Your task to perform on an android device: find which apps use the phone's location Image 0: 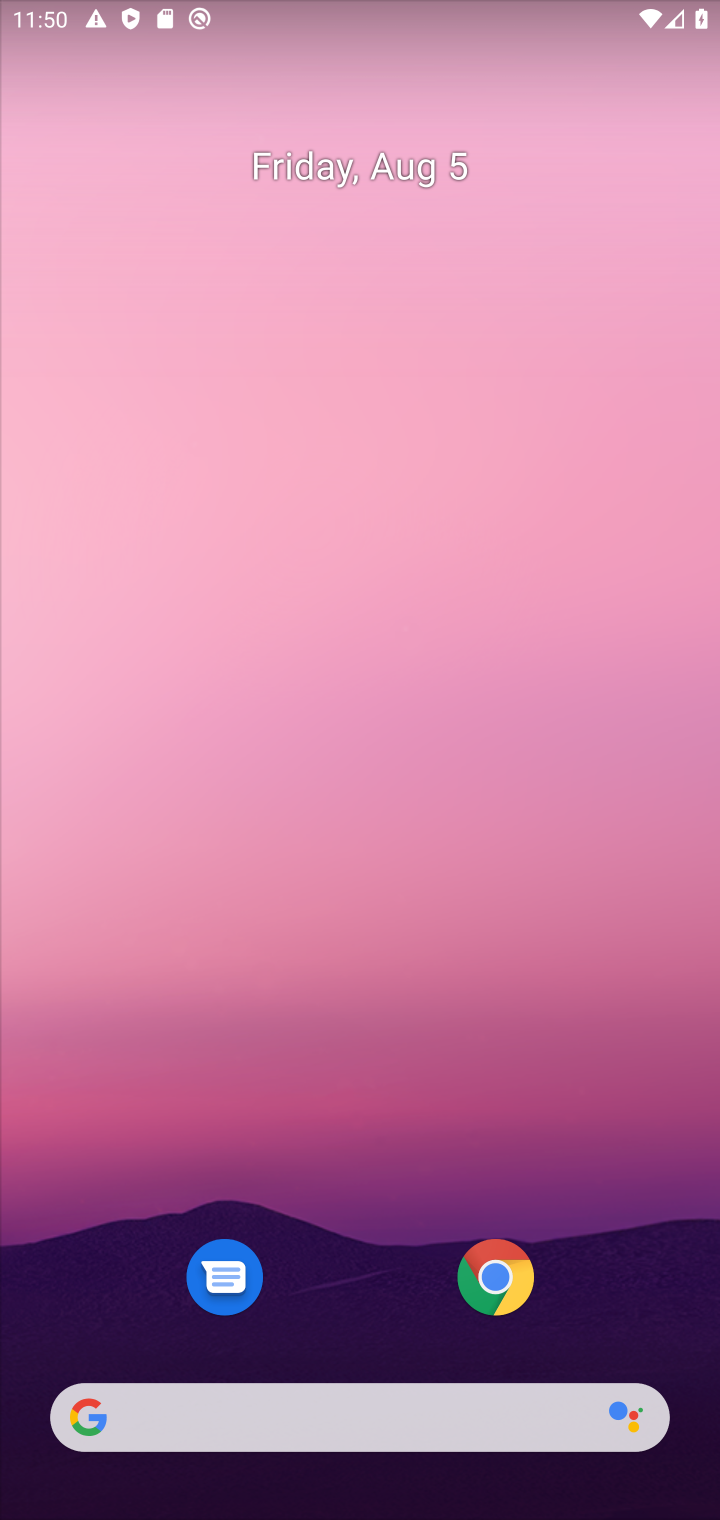
Step 0: drag from (327, 1412) to (493, 382)
Your task to perform on an android device: find which apps use the phone's location Image 1: 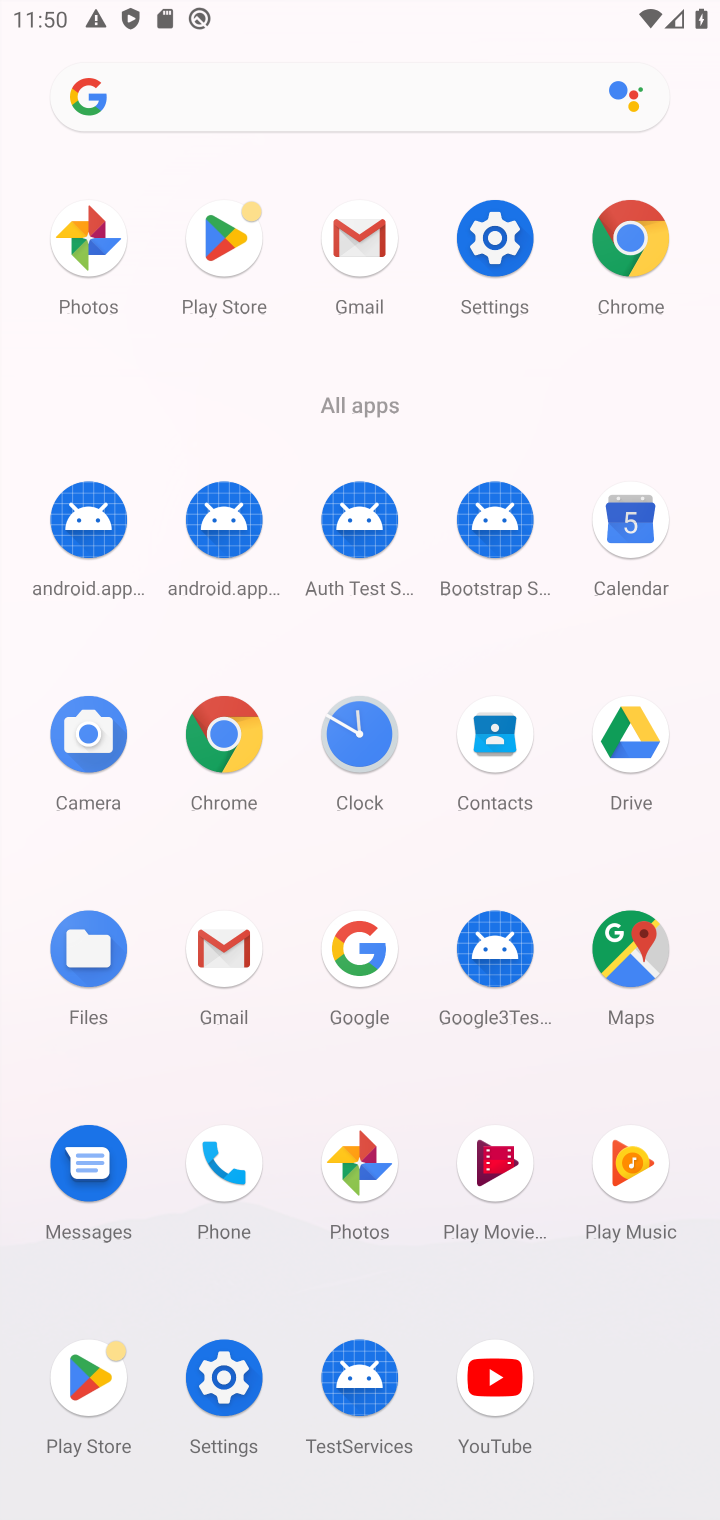
Step 1: click (488, 229)
Your task to perform on an android device: find which apps use the phone's location Image 2: 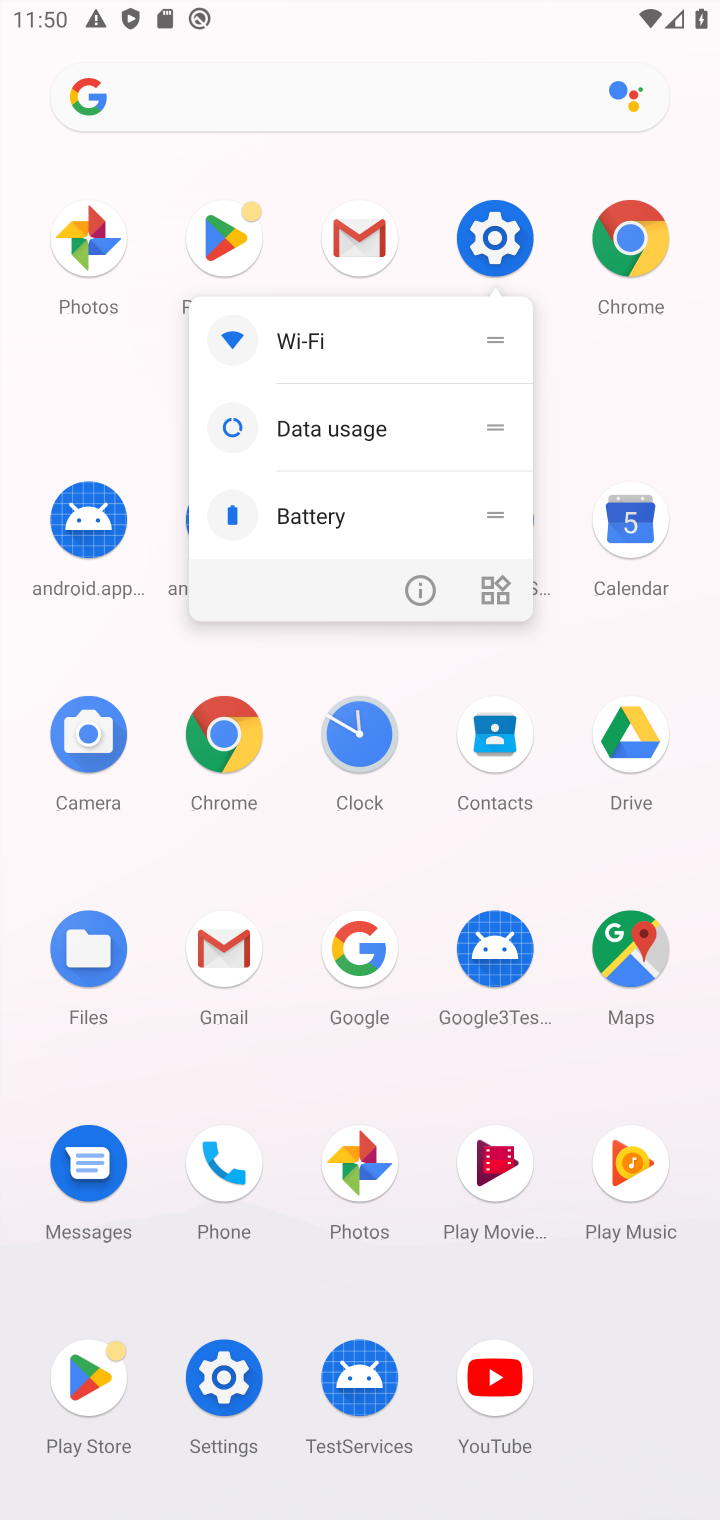
Step 2: click (499, 238)
Your task to perform on an android device: find which apps use the phone's location Image 3: 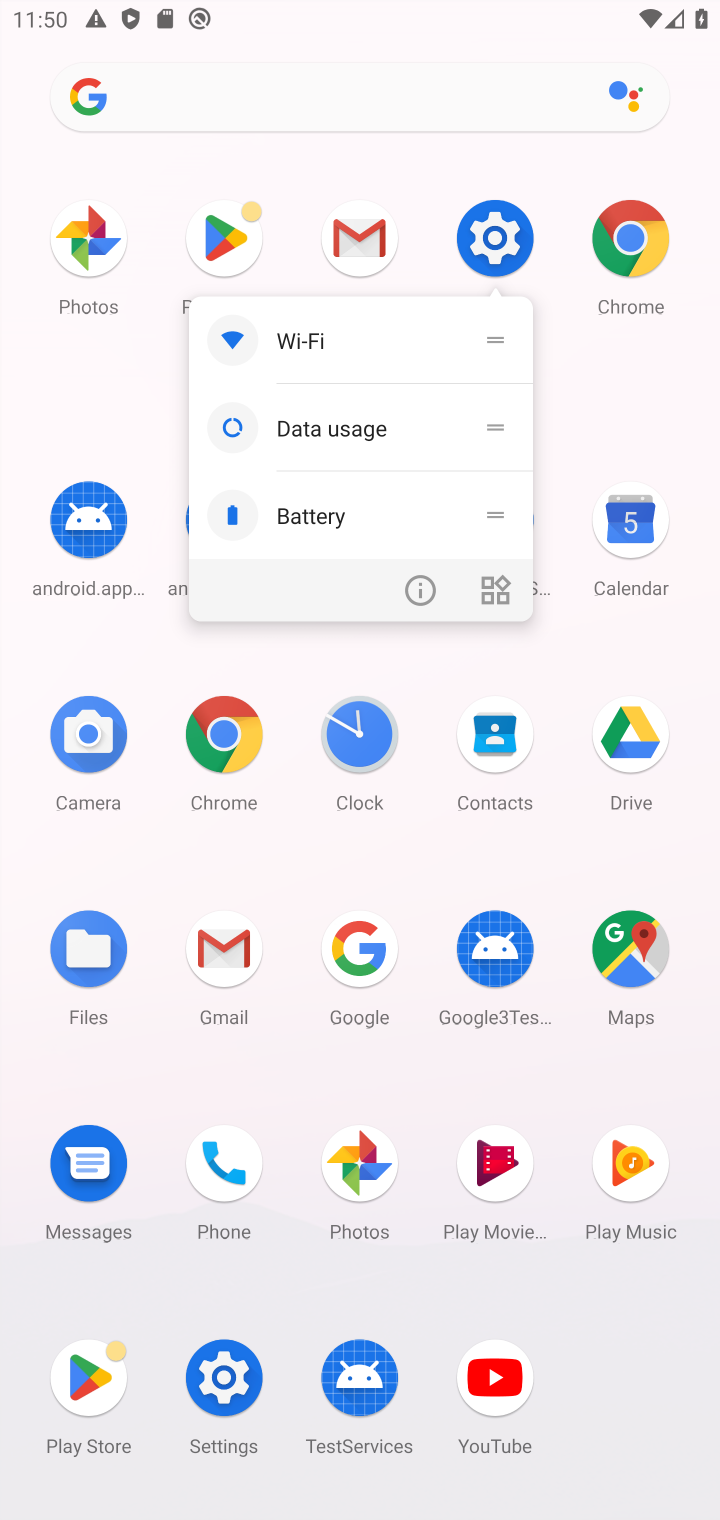
Step 3: click (499, 234)
Your task to perform on an android device: find which apps use the phone's location Image 4: 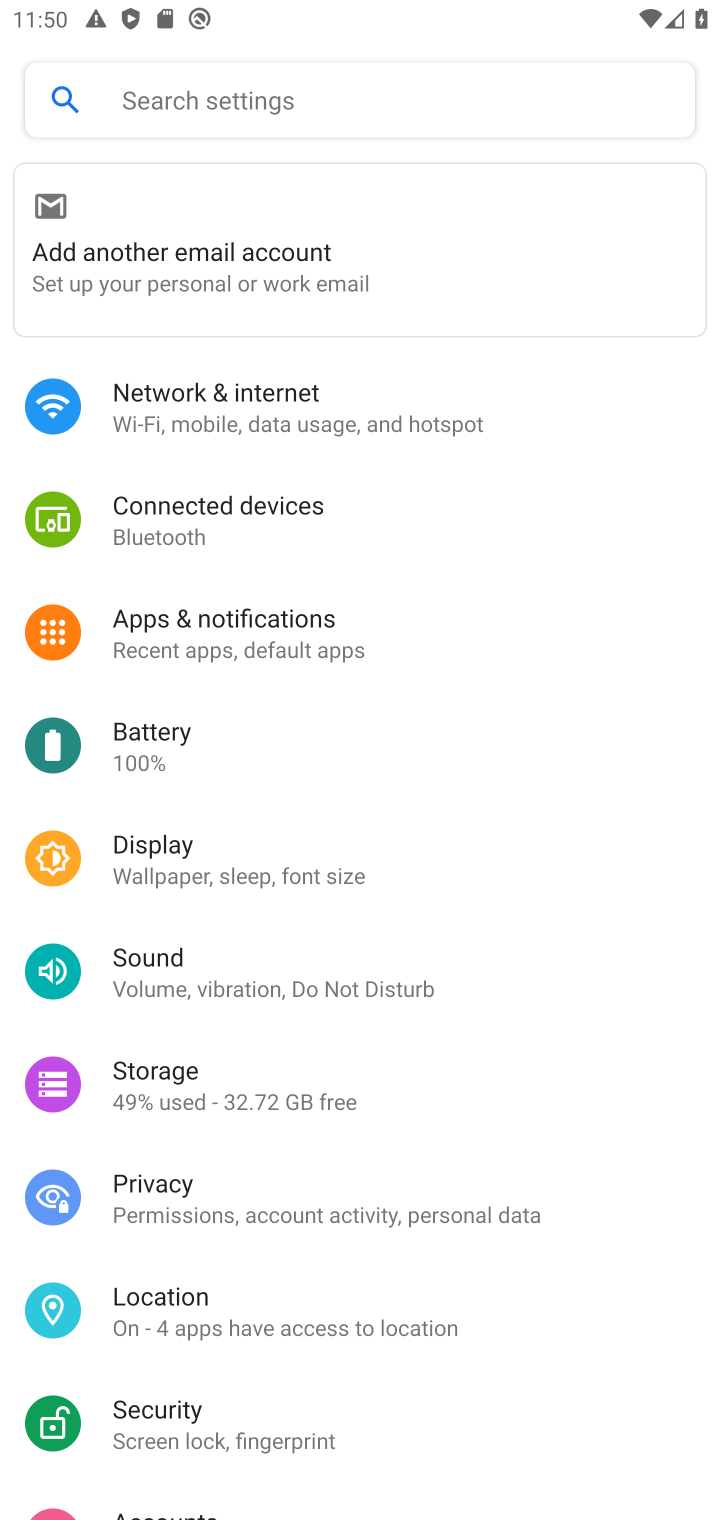
Step 4: click (205, 1316)
Your task to perform on an android device: find which apps use the phone's location Image 5: 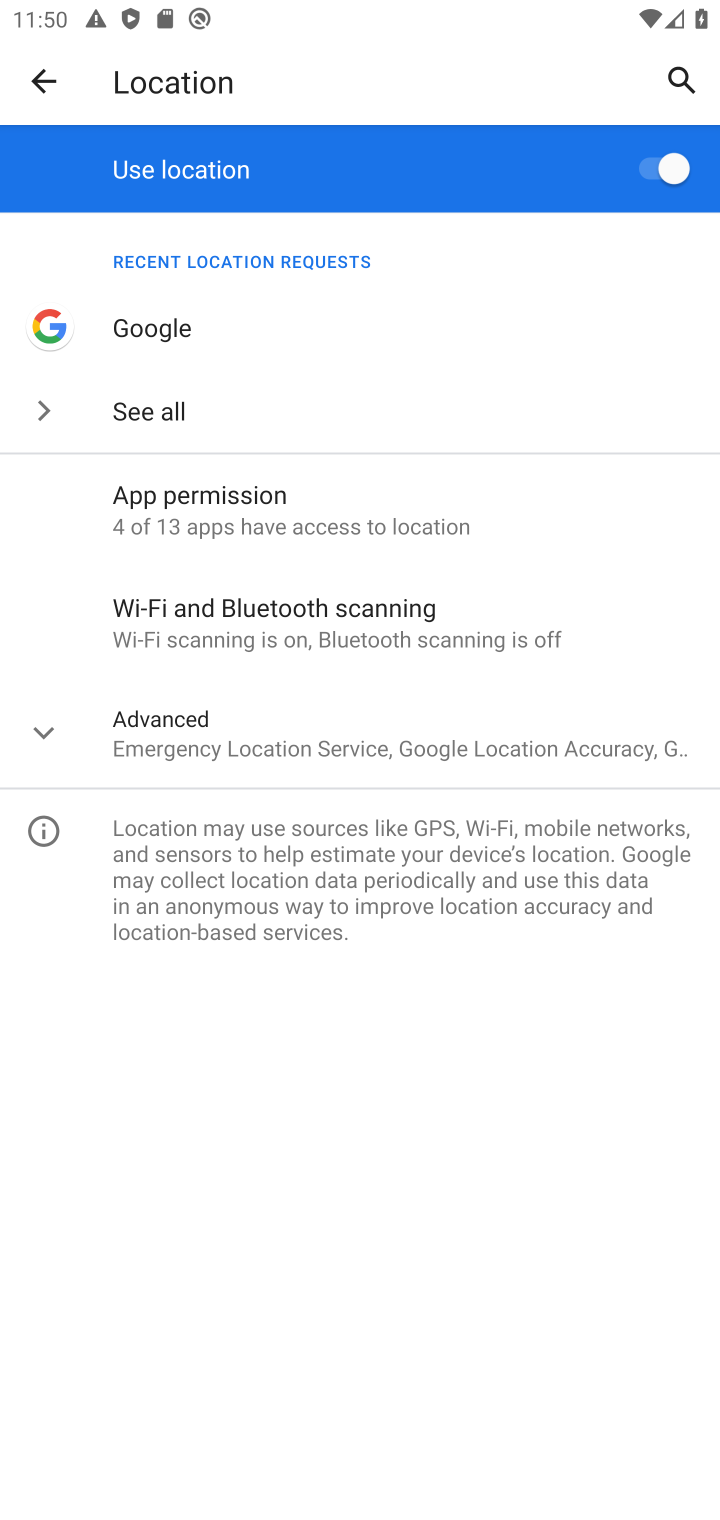
Step 5: click (185, 527)
Your task to perform on an android device: find which apps use the phone's location Image 6: 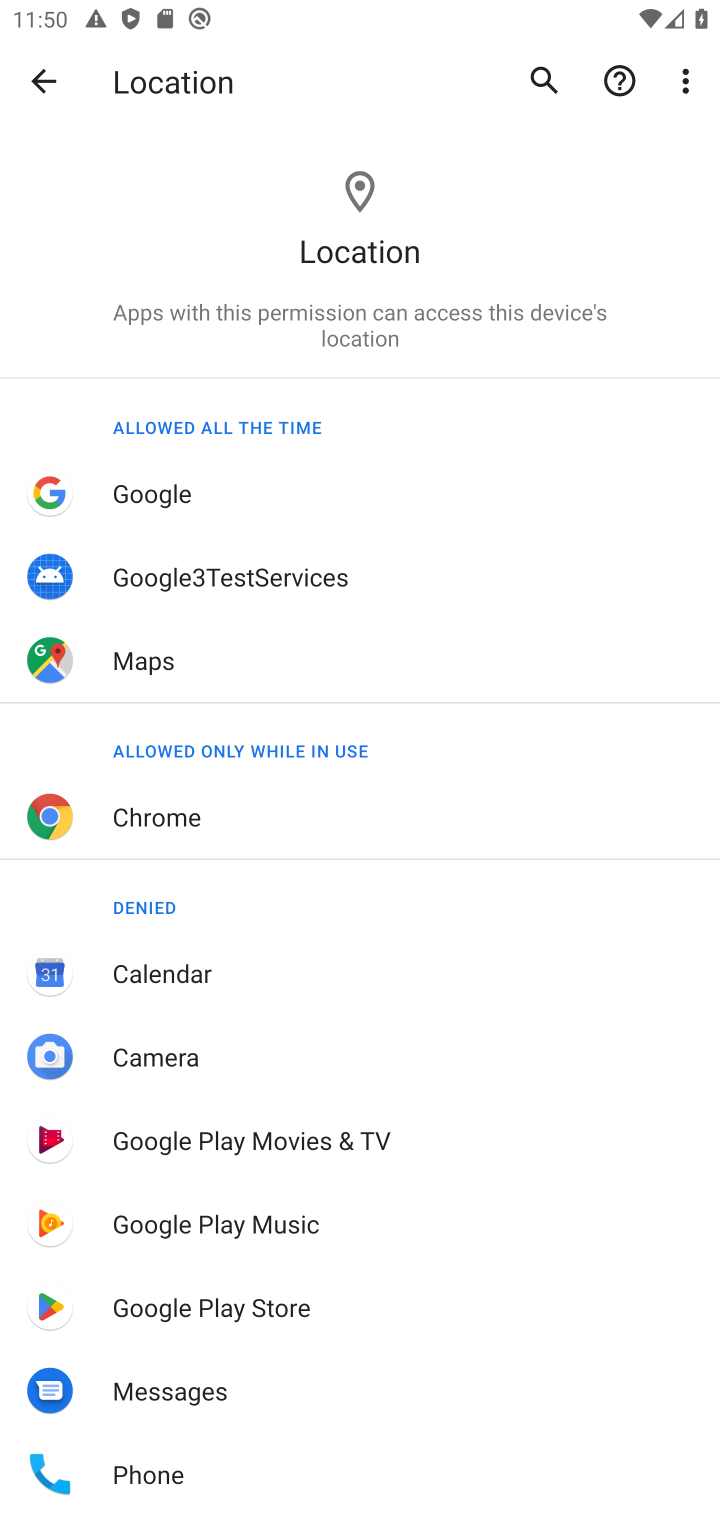
Step 6: drag from (434, 1319) to (668, 511)
Your task to perform on an android device: find which apps use the phone's location Image 7: 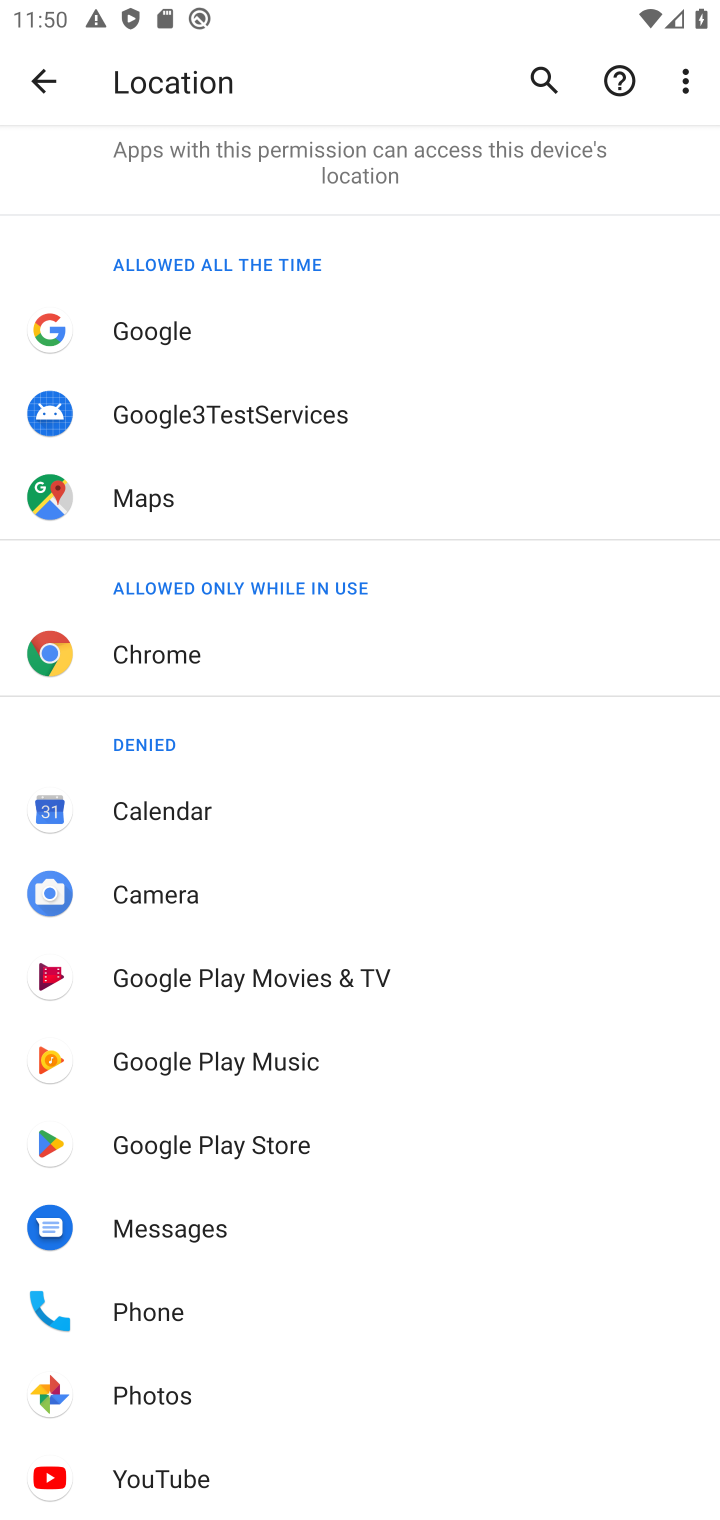
Step 7: click (234, 1318)
Your task to perform on an android device: find which apps use the phone's location Image 8: 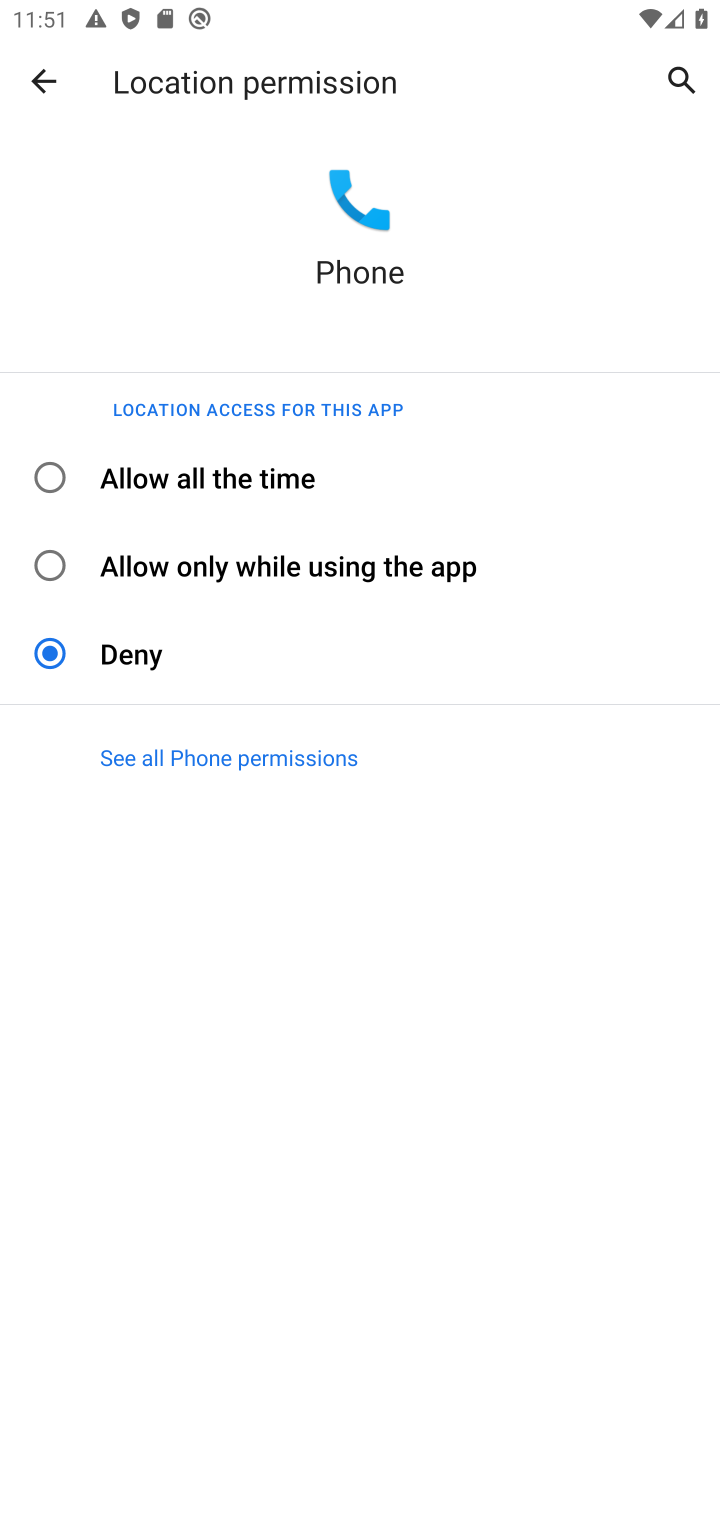
Step 8: task complete